Your task to perform on an android device: turn on javascript in the chrome app Image 0: 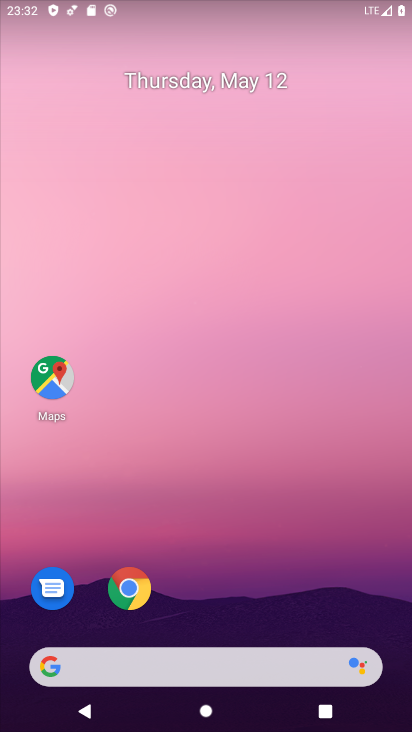
Step 0: drag from (190, 616) to (213, 157)
Your task to perform on an android device: turn on javascript in the chrome app Image 1: 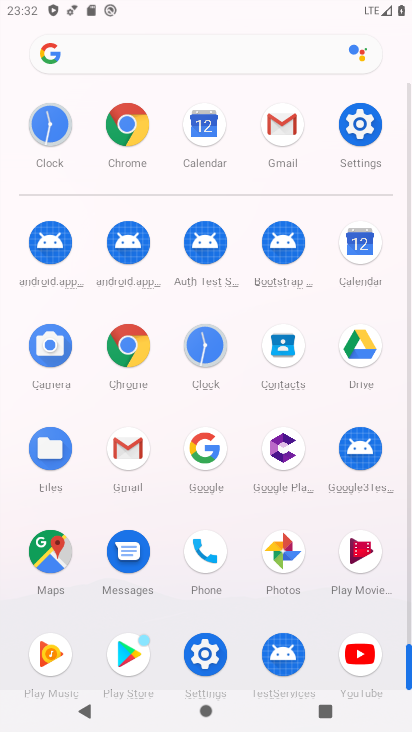
Step 1: click (135, 343)
Your task to perform on an android device: turn on javascript in the chrome app Image 2: 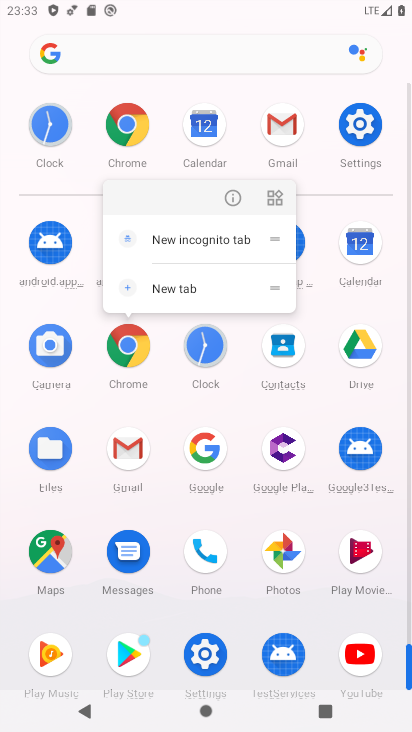
Step 2: click (240, 192)
Your task to perform on an android device: turn on javascript in the chrome app Image 3: 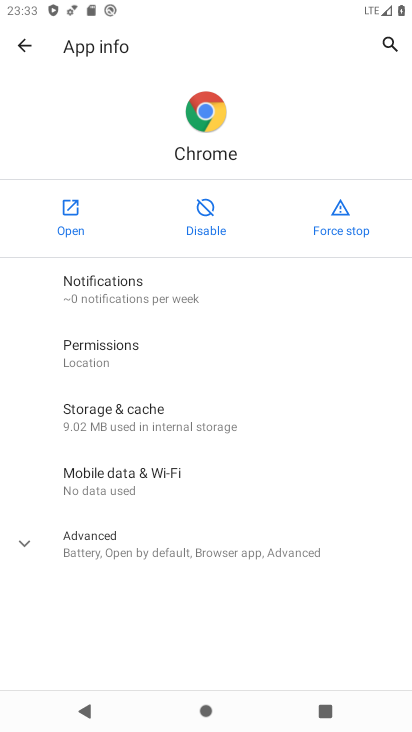
Step 3: click (71, 217)
Your task to perform on an android device: turn on javascript in the chrome app Image 4: 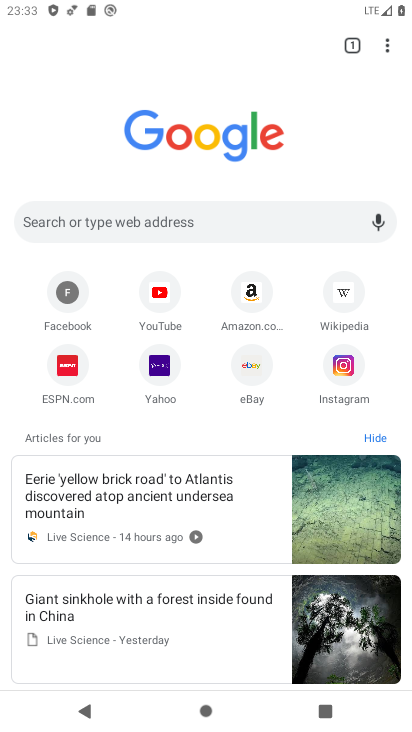
Step 4: drag from (174, 579) to (197, 105)
Your task to perform on an android device: turn on javascript in the chrome app Image 5: 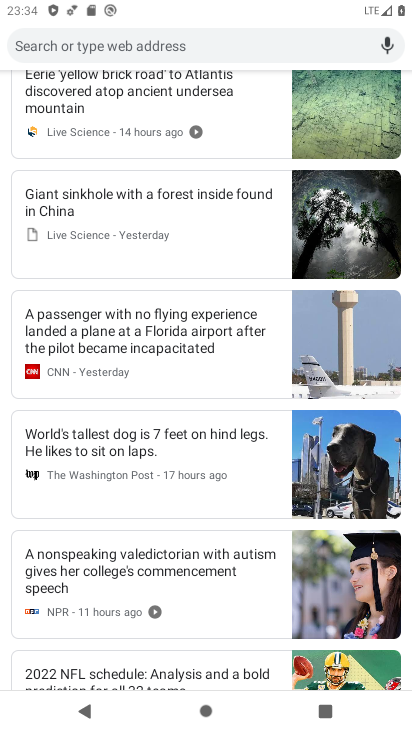
Step 5: drag from (141, 489) to (220, 201)
Your task to perform on an android device: turn on javascript in the chrome app Image 6: 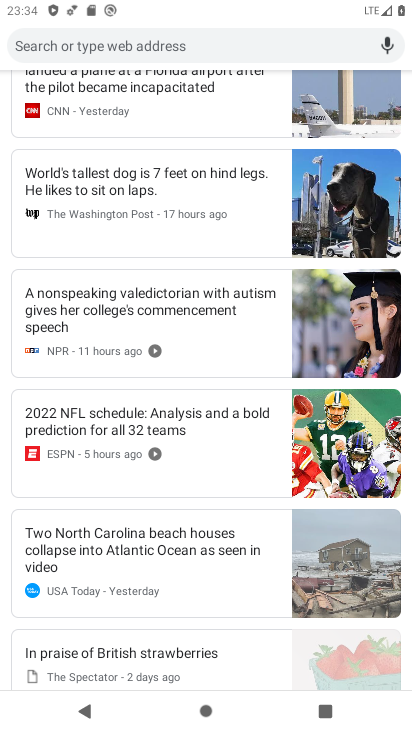
Step 6: drag from (204, 178) to (314, 725)
Your task to perform on an android device: turn on javascript in the chrome app Image 7: 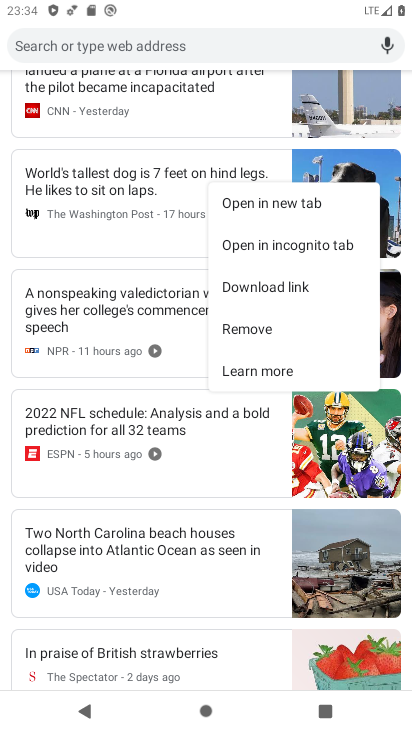
Step 7: drag from (182, 113) to (279, 614)
Your task to perform on an android device: turn on javascript in the chrome app Image 8: 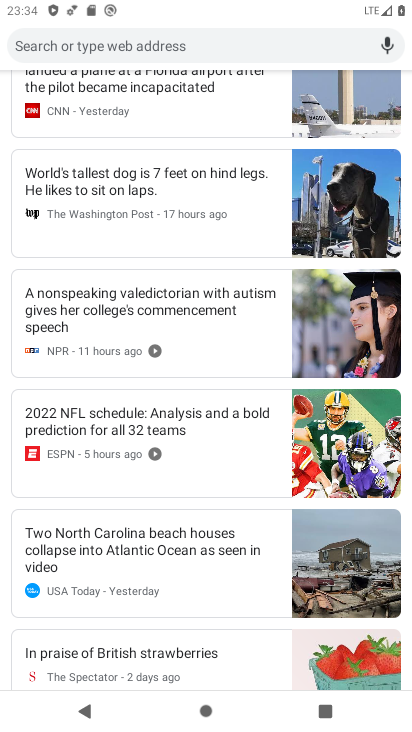
Step 8: drag from (216, 73) to (246, 535)
Your task to perform on an android device: turn on javascript in the chrome app Image 9: 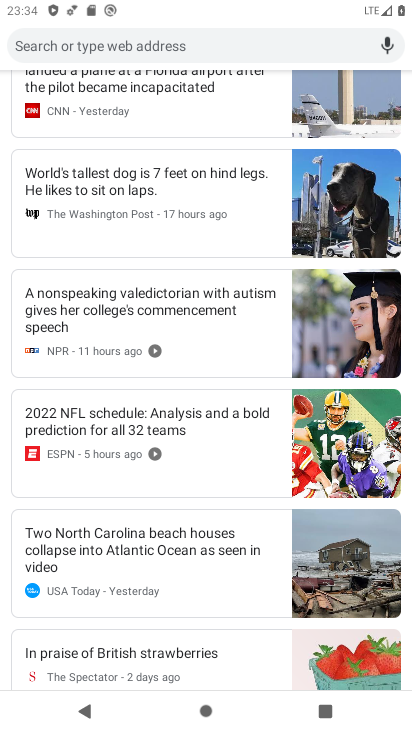
Step 9: drag from (244, 161) to (295, 595)
Your task to perform on an android device: turn on javascript in the chrome app Image 10: 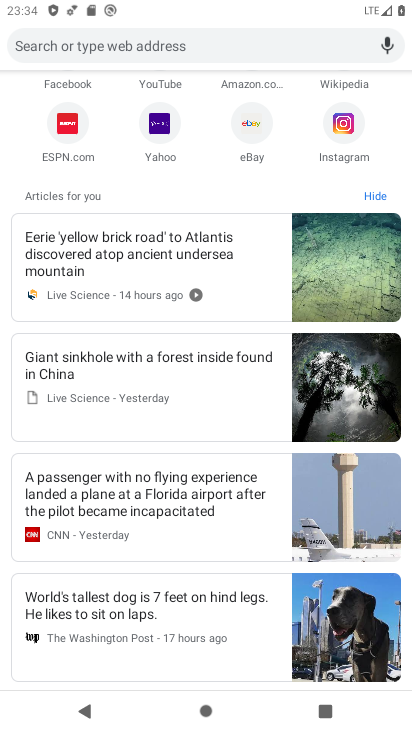
Step 10: drag from (266, 356) to (373, 146)
Your task to perform on an android device: turn on javascript in the chrome app Image 11: 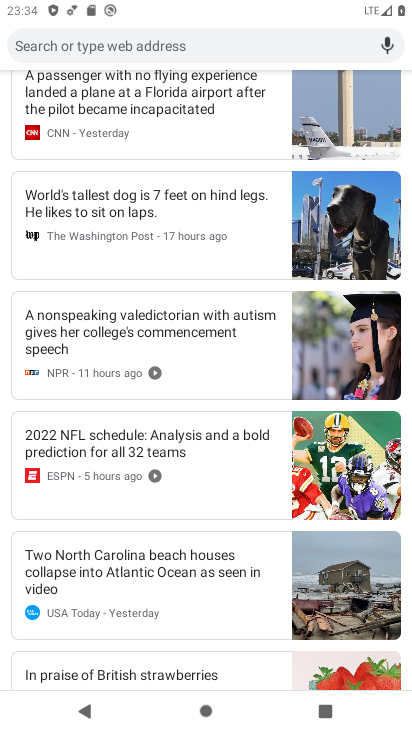
Step 11: drag from (276, 92) to (316, 549)
Your task to perform on an android device: turn on javascript in the chrome app Image 12: 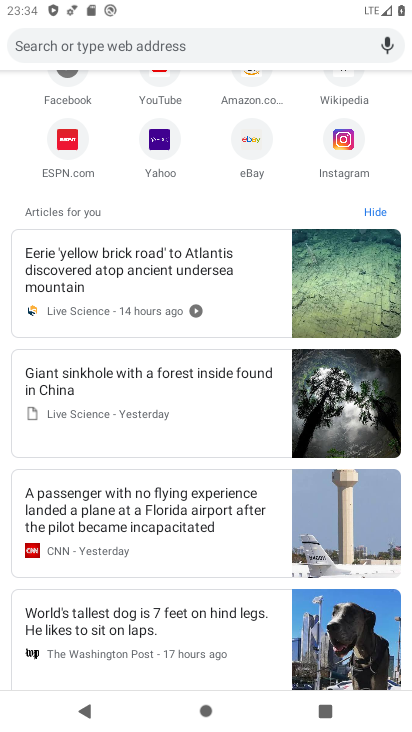
Step 12: drag from (281, 100) to (277, 467)
Your task to perform on an android device: turn on javascript in the chrome app Image 13: 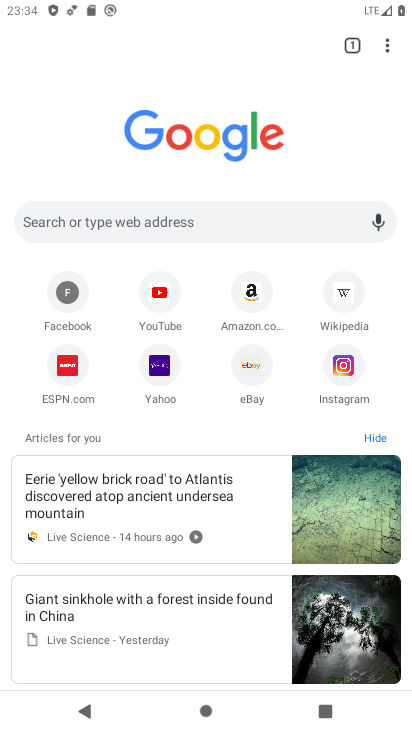
Step 13: click (381, 45)
Your task to perform on an android device: turn on javascript in the chrome app Image 14: 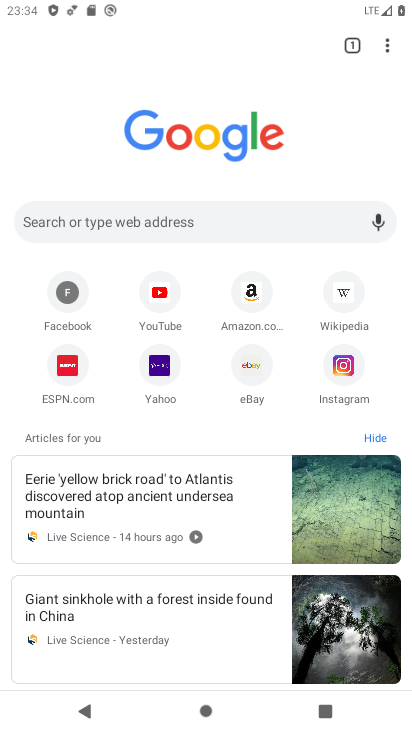
Step 14: click (383, 45)
Your task to perform on an android device: turn on javascript in the chrome app Image 15: 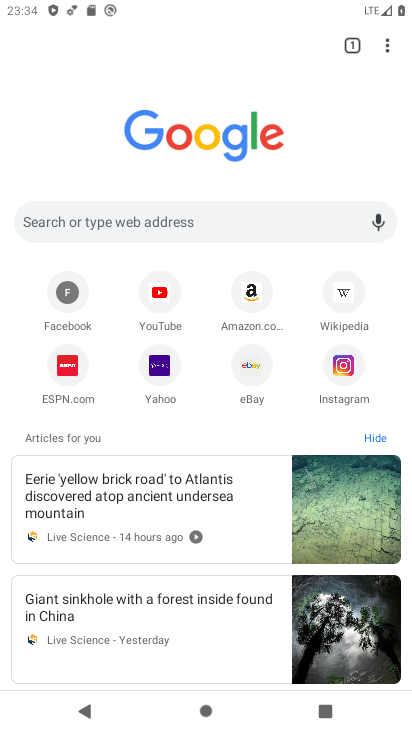
Step 15: click (390, 43)
Your task to perform on an android device: turn on javascript in the chrome app Image 16: 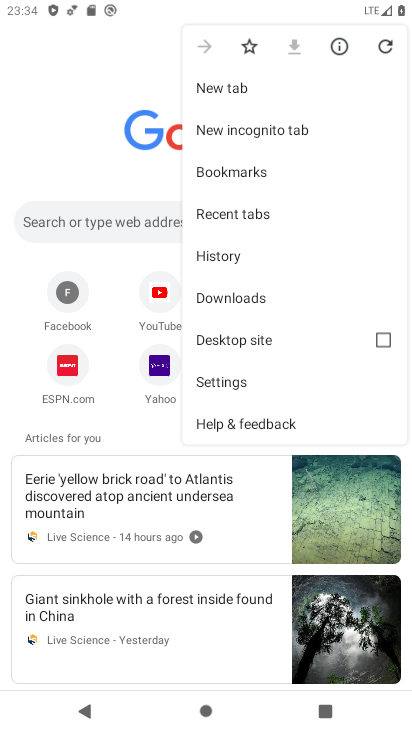
Step 16: click (237, 382)
Your task to perform on an android device: turn on javascript in the chrome app Image 17: 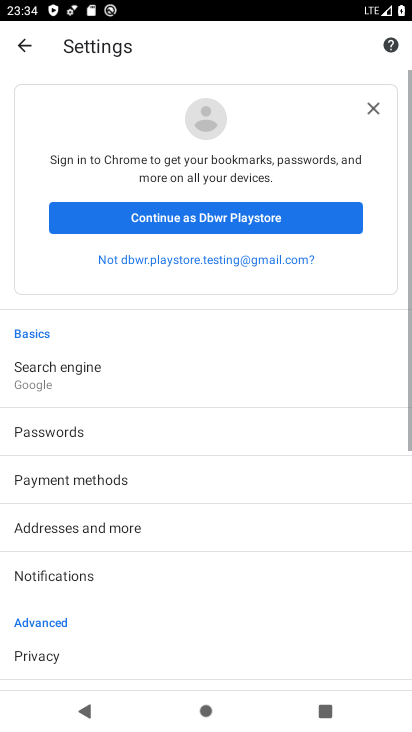
Step 17: drag from (112, 511) to (160, 185)
Your task to perform on an android device: turn on javascript in the chrome app Image 18: 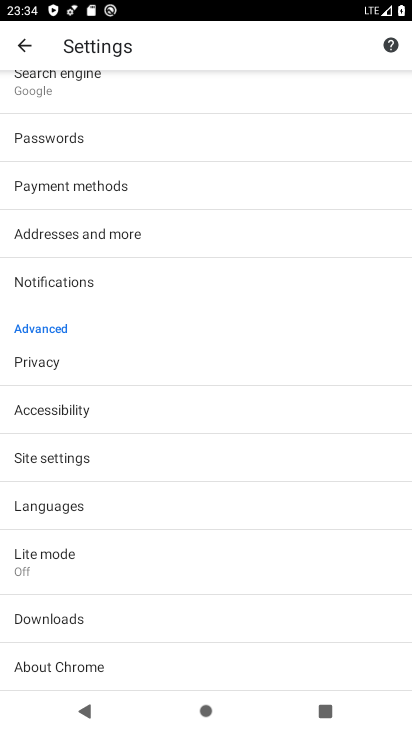
Step 18: click (92, 465)
Your task to perform on an android device: turn on javascript in the chrome app Image 19: 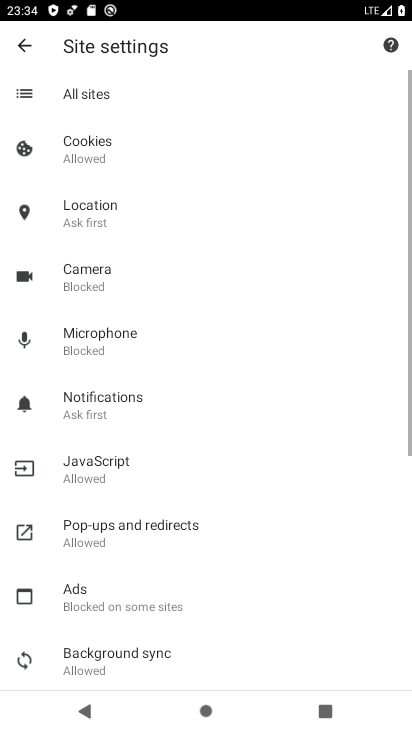
Step 19: click (134, 457)
Your task to perform on an android device: turn on javascript in the chrome app Image 20: 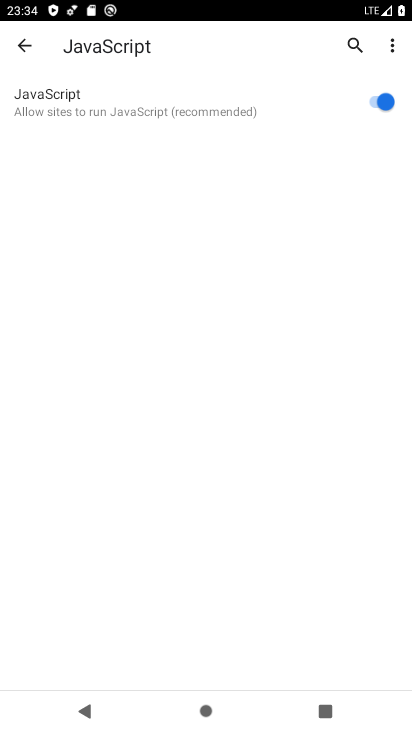
Step 20: task complete